Your task to perform on an android device: Open Google Chrome and open the bookmarks view Image 0: 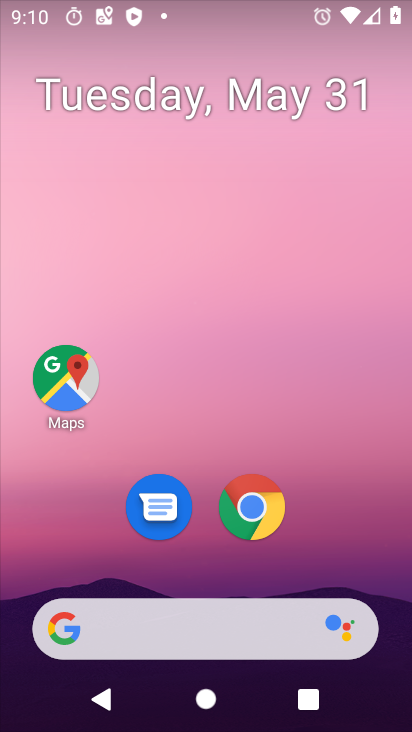
Step 0: click (250, 514)
Your task to perform on an android device: Open Google Chrome and open the bookmarks view Image 1: 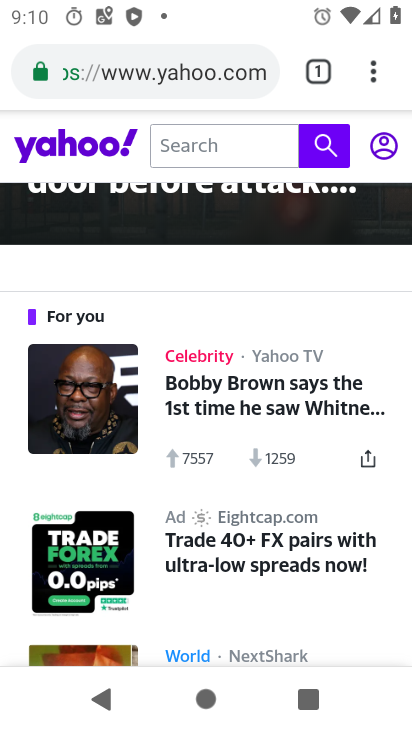
Step 1: click (370, 76)
Your task to perform on an android device: Open Google Chrome and open the bookmarks view Image 2: 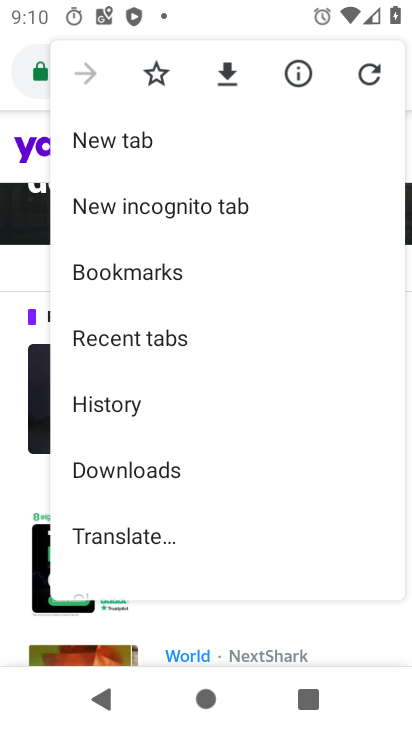
Step 2: click (110, 275)
Your task to perform on an android device: Open Google Chrome and open the bookmarks view Image 3: 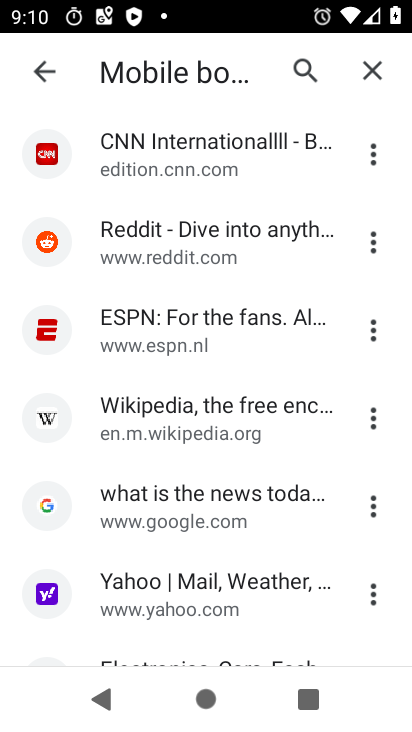
Step 3: task complete